Your task to perform on an android device: Open calendar and show me the fourth week of next month Image 0: 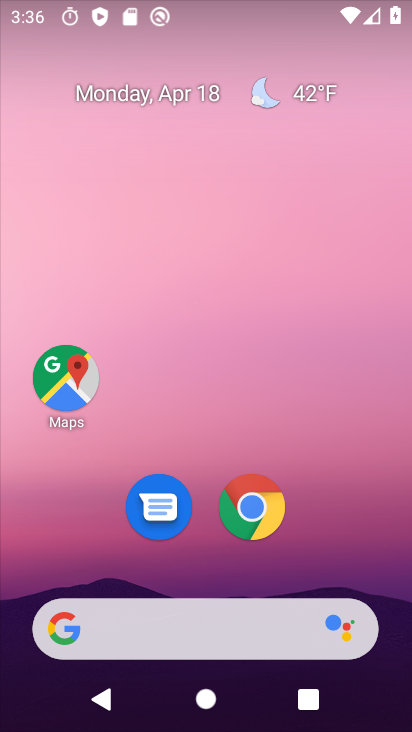
Step 0: drag from (207, 566) to (139, 51)
Your task to perform on an android device: Open calendar and show me the fourth week of next month Image 1: 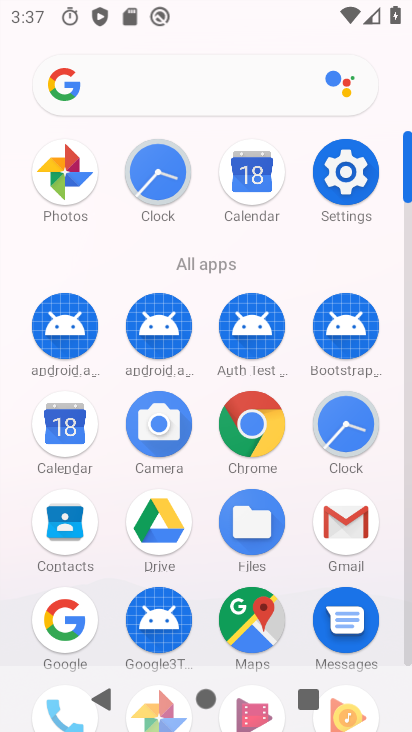
Step 1: click (61, 444)
Your task to perform on an android device: Open calendar and show me the fourth week of next month Image 2: 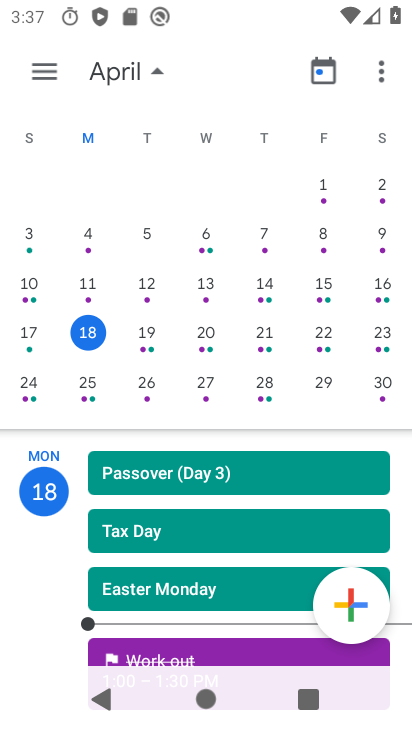
Step 2: drag from (325, 287) to (17, 283)
Your task to perform on an android device: Open calendar and show me the fourth week of next month Image 3: 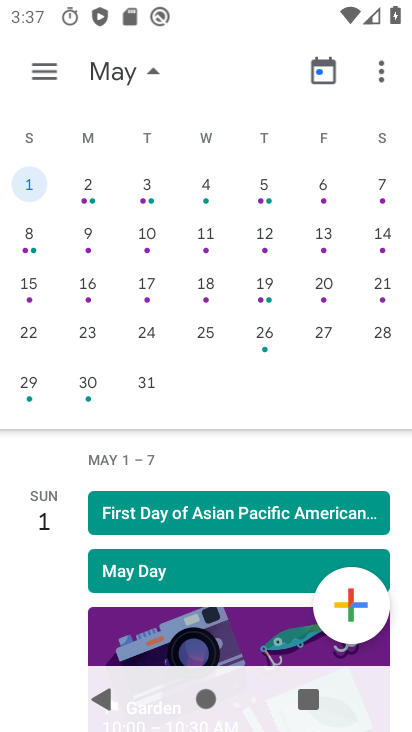
Step 3: click (42, 330)
Your task to perform on an android device: Open calendar and show me the fourth week of next month Image 4: 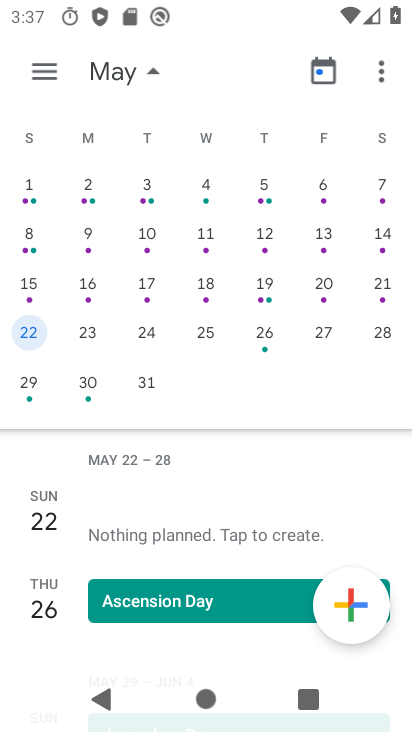
Step 4: task complete